Your task to perform on an android device: create a new album in the google photos Image 0: 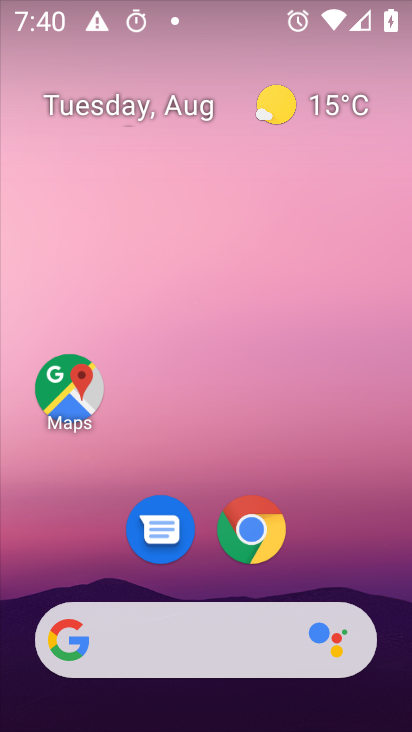
Step 0: drag from (209, 540) to (235, 0)
Your task to perform on an android device: create a new album in the google photos Image 1: 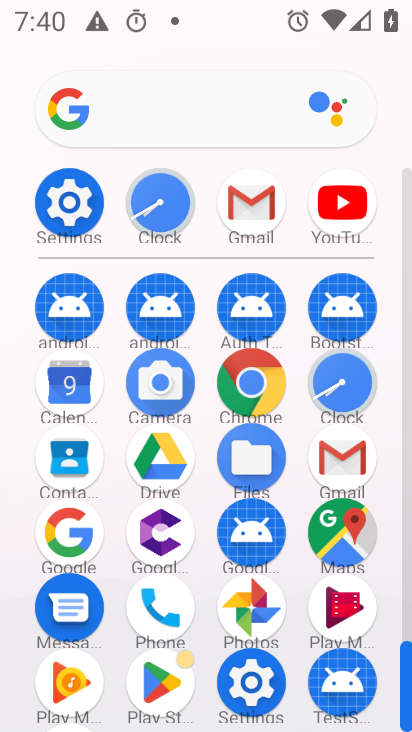
Step 1: click (253, 600)
Your task to perform on an android device: create a new album in the google photos Image 2: 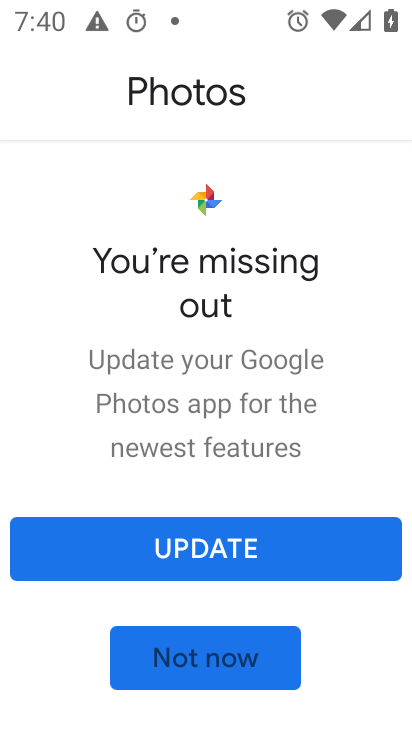
Step 2: click (213, 540)
Your task to perform on an android device: create a new album in the google photos Image 3: 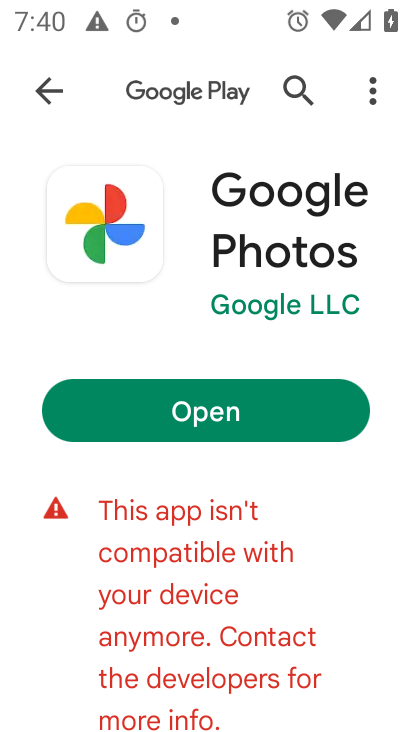
Step 3: click (279, 414)
Your task to perform on an android device: create a new album in the google photos Image 4: 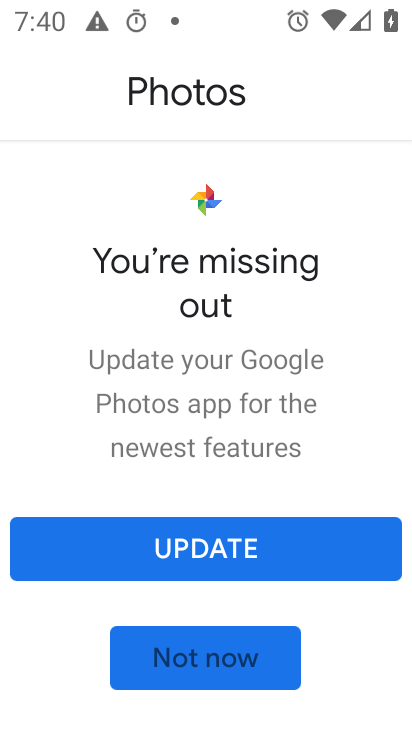
Step 4: click (251, 645)
Your task to perform on an android device: create a new album in the google photos Image 5: 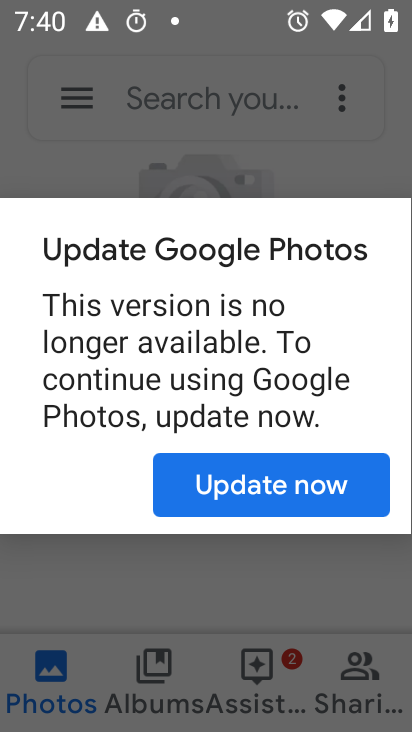
Step 5: task complete